Your task to perform on an android device: Open Yahoo.com Image 0: 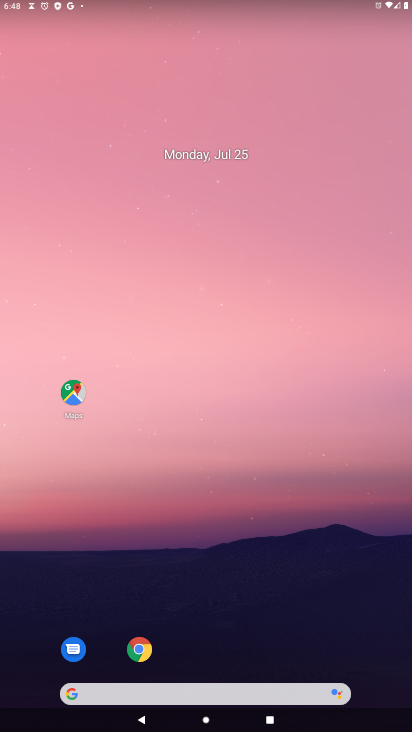
Step 0: drag from (178, 681) to (201, 121)
Your task to perform on an android device: Open Yahoo.com Image 1: 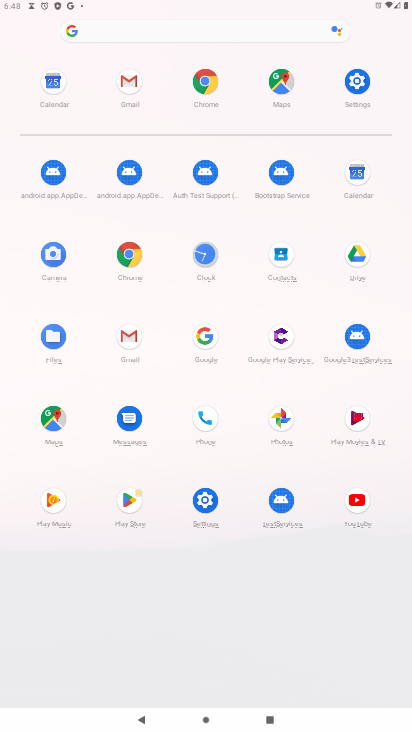
Step 1: click (127, 251)
Your task to perform on an android device: Open Yahoo.com Image 2: 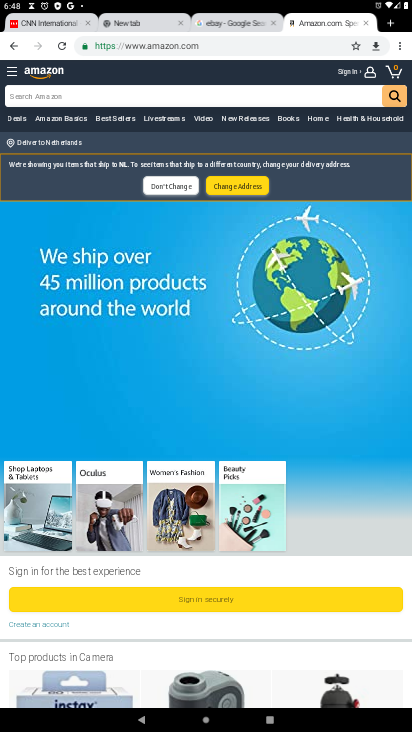
Step 2: click (211, 40)
Your task to perform on an android device: Open Yahoo.com Image 3: 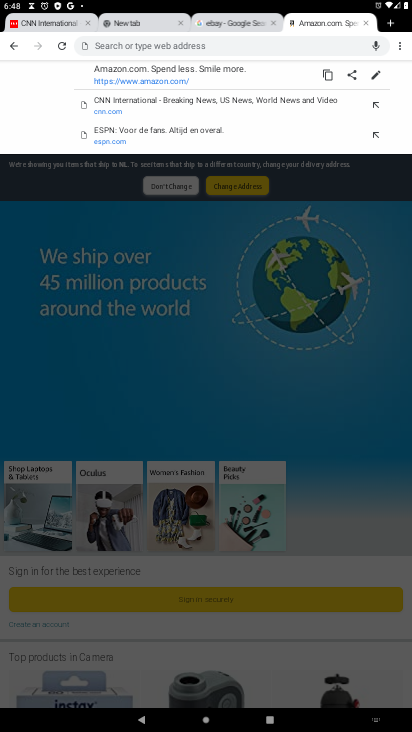
Step 3: type "yahoo.com"
Your task to perform on an android device: Open Yahoo.com Image 4: 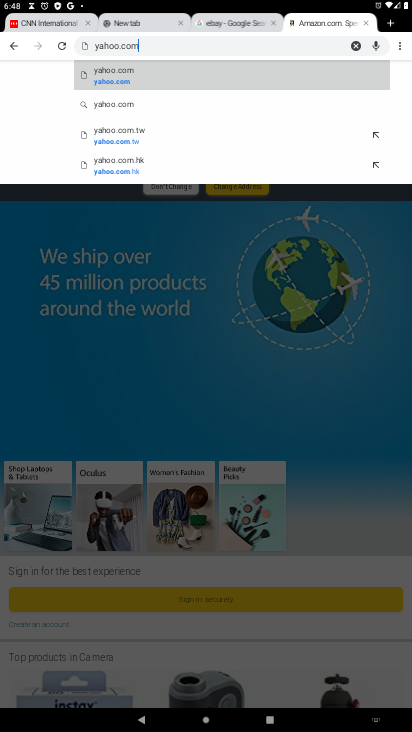
Step 4: click (208, 79)
Your task to perform on an android device: Open Yahoo.com Image 5: 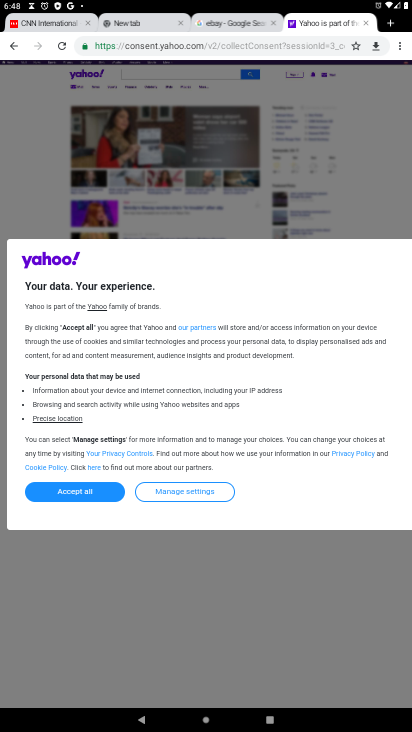
Step 5: task complete